Your task to perform on an android device: turn off sleep mode Image 0: 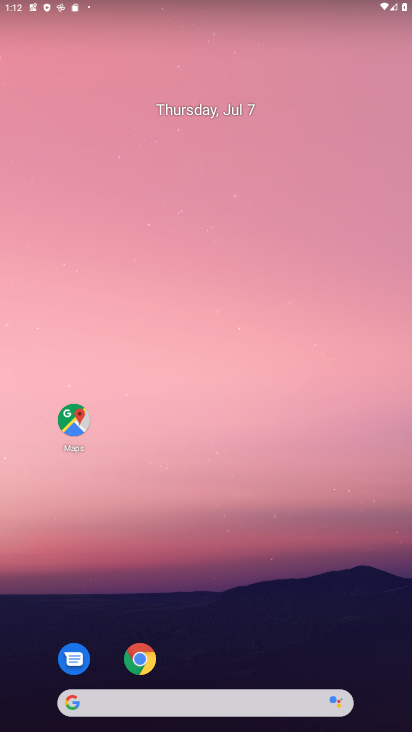
Step 0: drag from (233, 615) to (131, 220)
Your task to perform on an android device: turn off sleep mode Image 1: 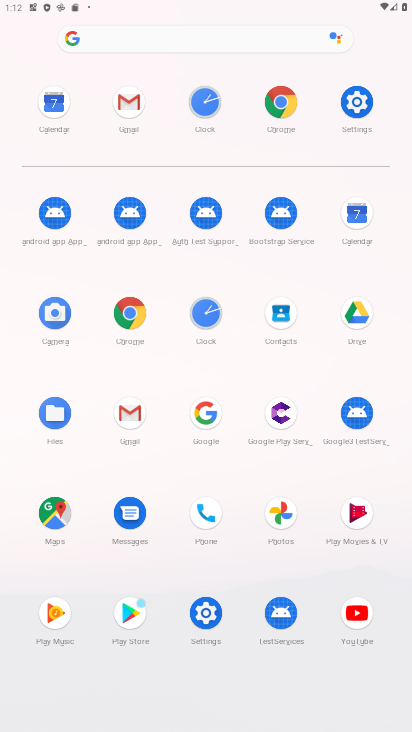
Step 1: click (363, 106)
Your task to perform on an android device: turn off sleep mode Image 2: 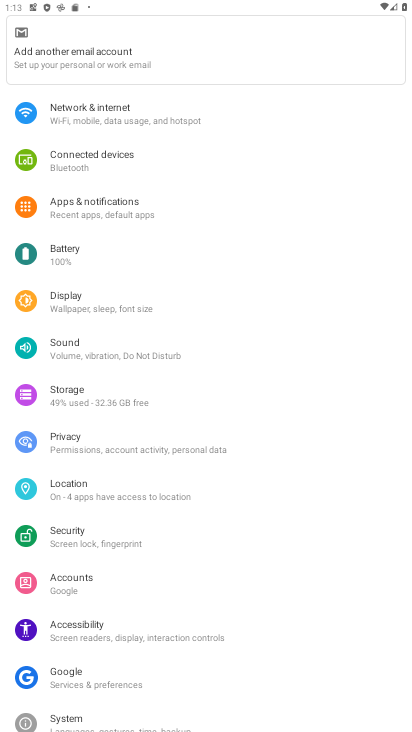
Step 2: click (67, 296)
Your task to perform on an android device: turn off sleep mode Image 3: 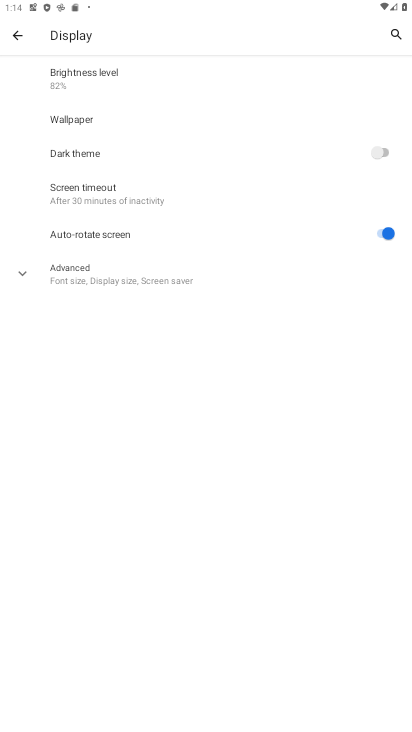
Step 3: task complete